Your task to perform on an android device: toggle improve location accuracy Image 0: 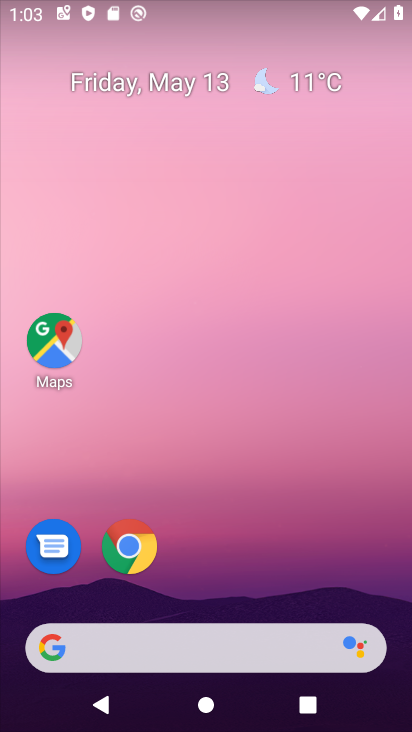
Step 0: drag from (243, 463) to (273, 166)
Your task to perform on an android device: toggle improve location accuracy Image 1: 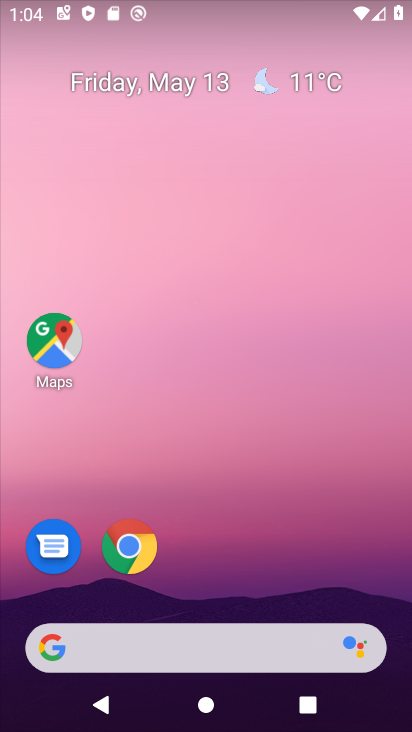
Step 1: drag from (203, 601) to (247, 72)
Your task to perform on an android device: toggle improve location accuracy Image 2: 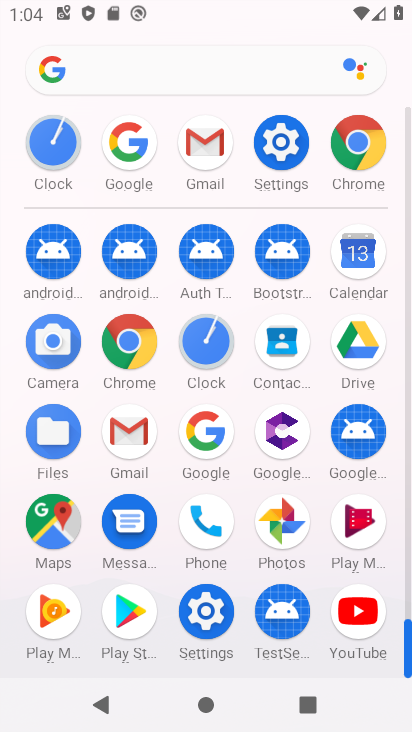
Step 2: click (295, 177)
Your task to perform on an android device: toggle improve location accuracy Image 3: 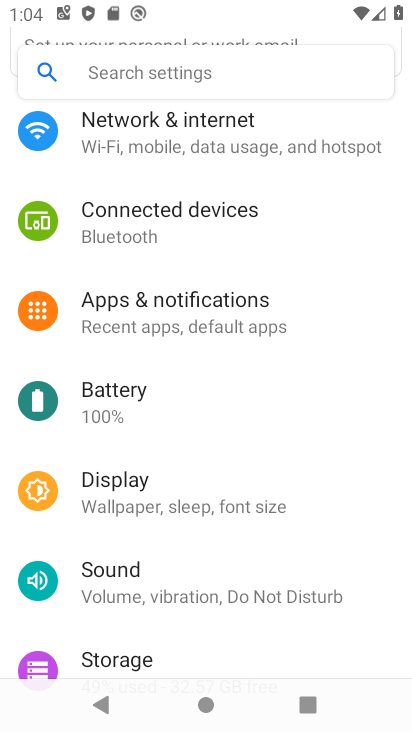
Step 3: drag from (187, 530) to (258, 188)
Your task to perform on an android device: toggle improve location accuracy Image 4: 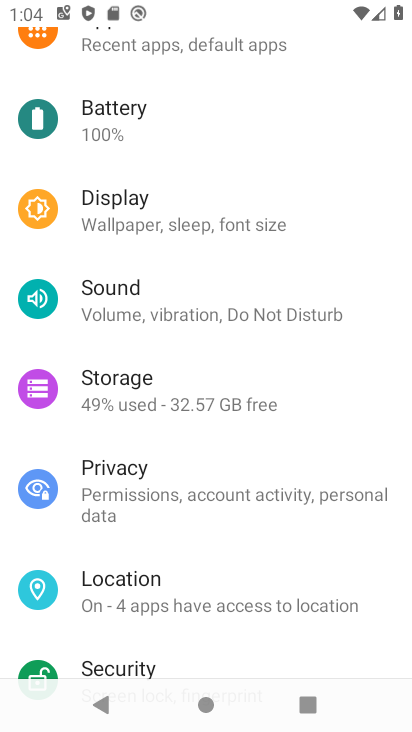
Step 4: drag from (207, 457) to (238, 286)
Your task to perform on an android device: toggle improve location accuracy Image 5: 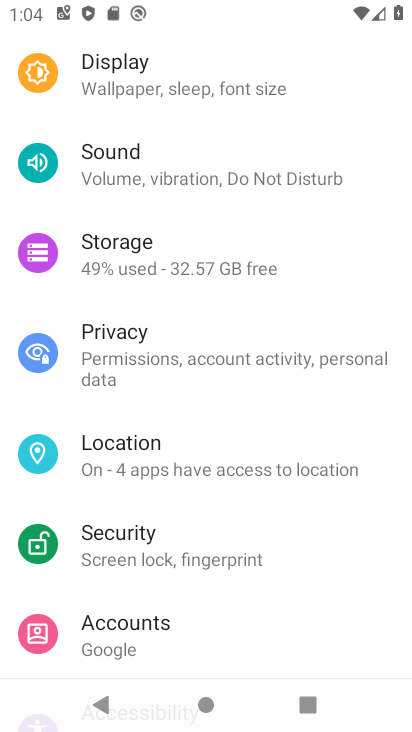
Step 5: click (207, 456)
Your task to perform on an android device: toggle improve location accuracy Image 6: 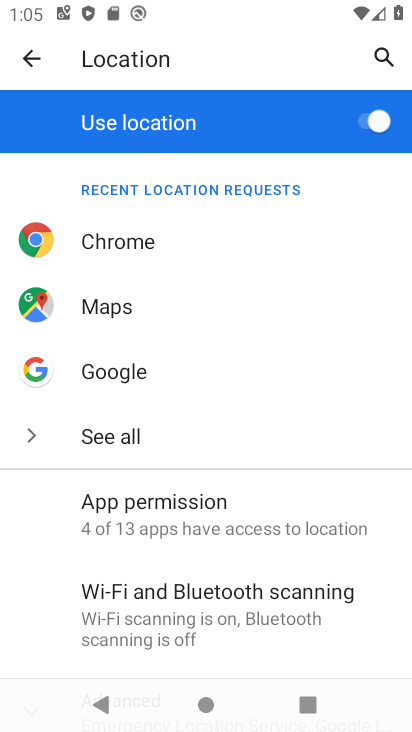
Step 6: drag from (175, 600) to (197, 159)
Your task to perform on an android device: toggle improve location accuracy Image 7: 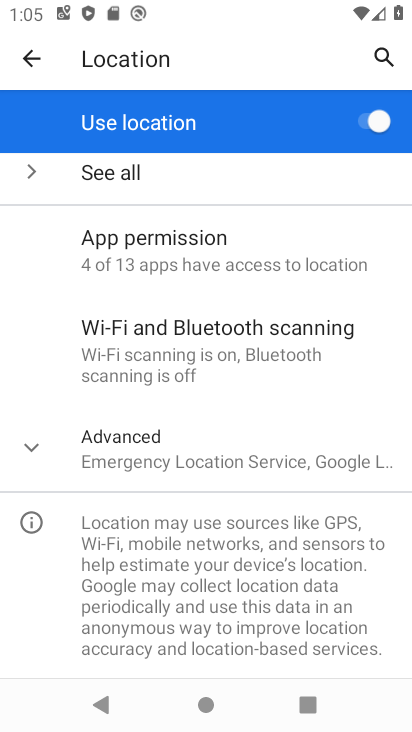
Step 7: click (157, 447)
Your task to perform on an android device: toggle improve location accuracy Image 8: 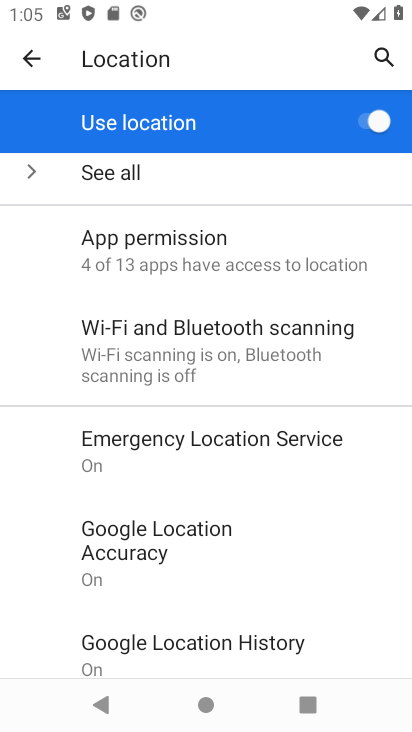
Step 8: click (261, 553)
Your task to perform on an android device: toggle improve location accuracy Image 9: 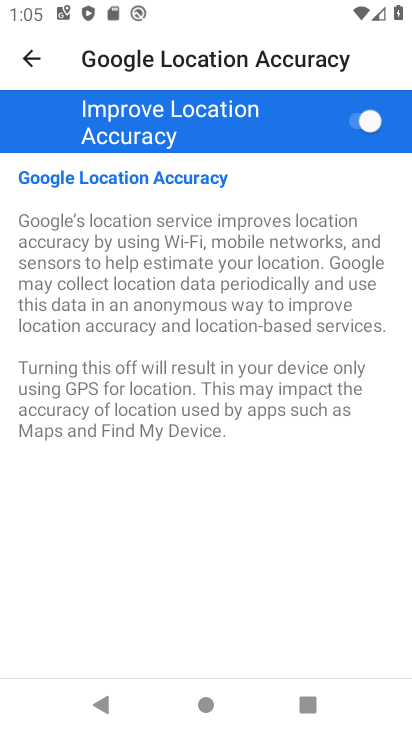
Step 9: click (358, 126)
Your task to perform on an android device: toggle improve location accuracy Image 10: 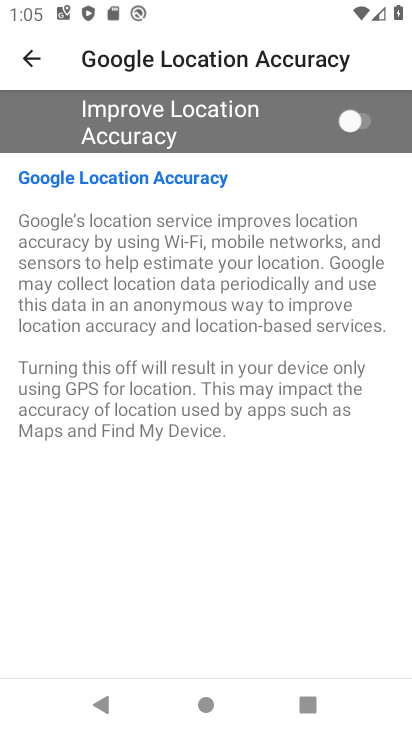
Step 10: task complete